Your task to perform on an android device: turn on notifications settings in the gmail app Image 0: 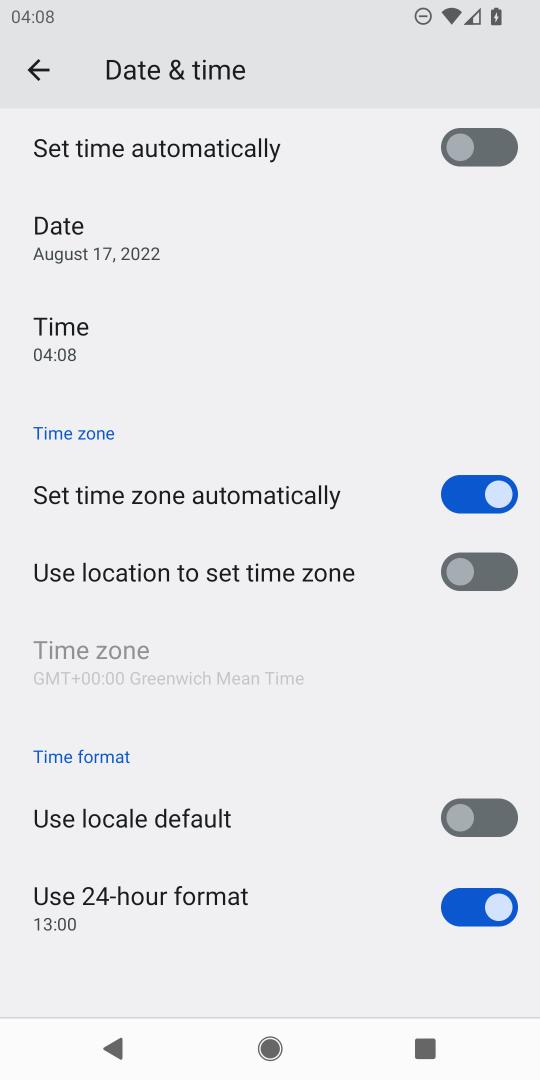
Step 0: press home button
Your task to perform on an android device: turn on notifications settings in the gmail app Image 1: 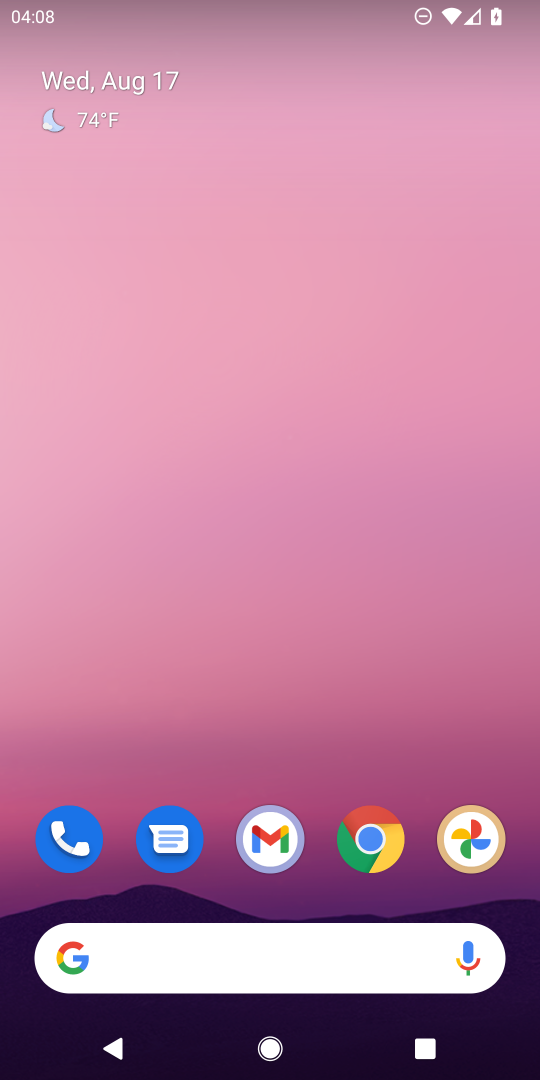
Step 1: click (269, 846)
Your task to perform on an android device: turn on notifications settings in the gmail app Image 2: 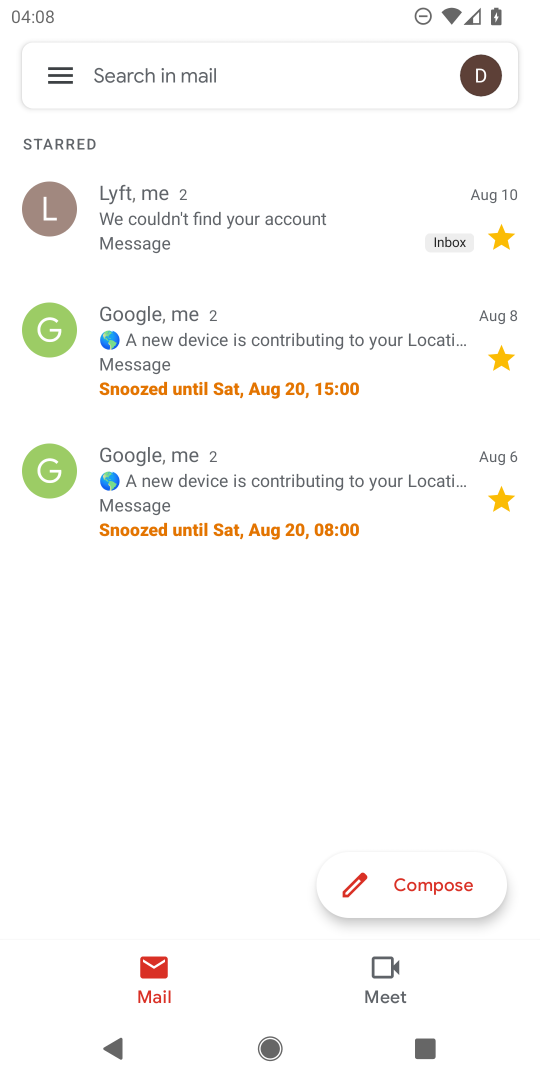
Step 2: click (50, 70)
Your task to perform on an android device: turn on notifications settings in the gmail app Image 3: 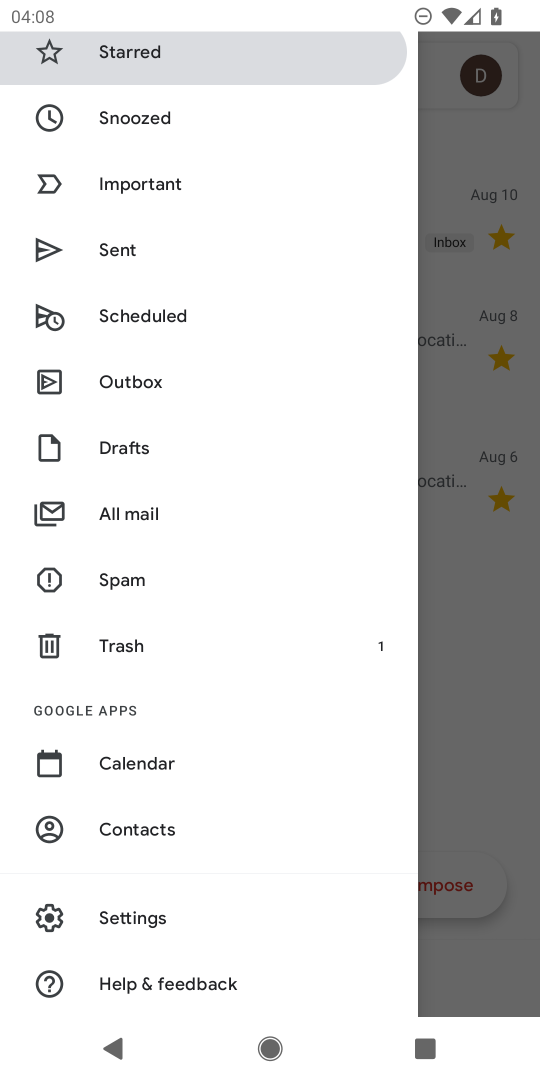
Step 3: click (127, 915)
Your task to perform on an android device: turn on notifications settings in the gmail app Image 4: 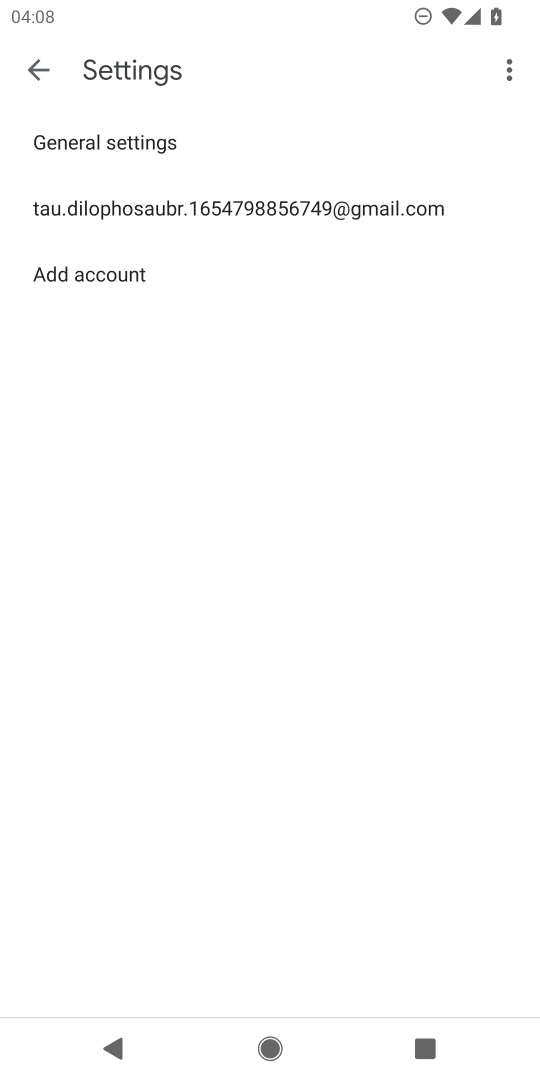
Step 4: click (242, 205)
Your task to perform on an android device: turn on notifications settings in the gmail app Image 5: 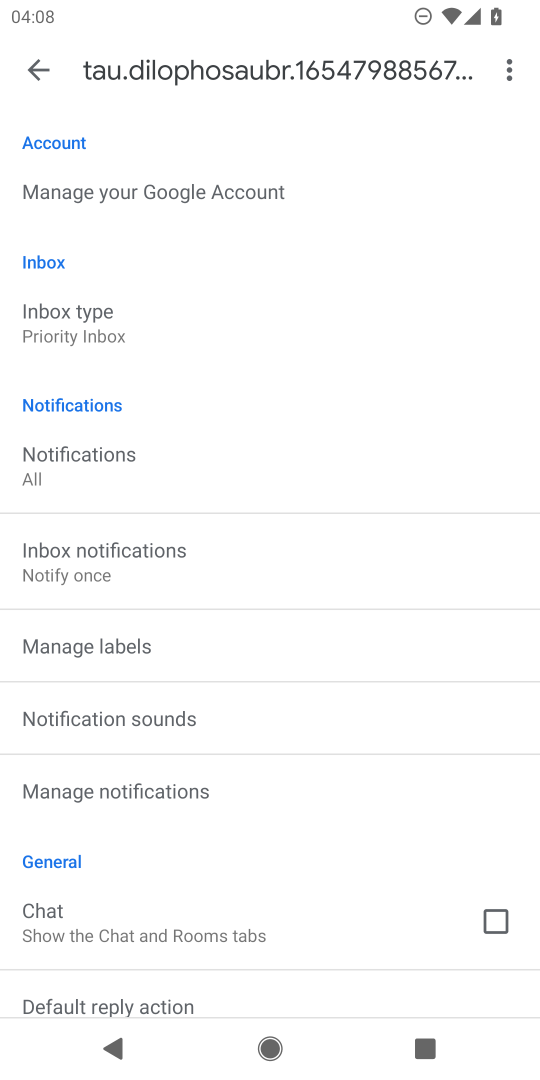
Step 5: task complete